Your task to perform on an android device: open the mobile data screen to see how much data has been used Image 0: 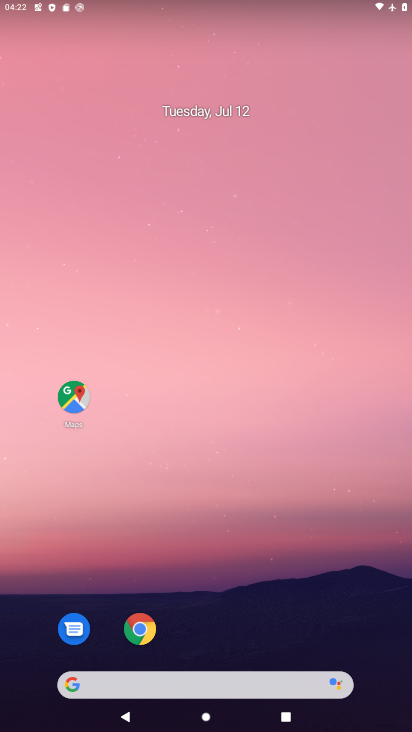
Step 0: drag from (304, 627) to (191, 201)
Your task to perform on an android device: open the mobile data screen to see how much data has been used Image 1: 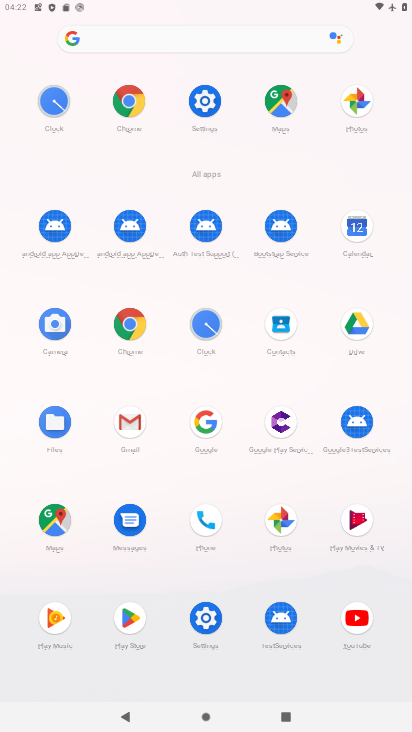
Step 1: click (209, 100)
Your task to perform on an android device: open the mobile data screen to see how much data has been used Image 2: 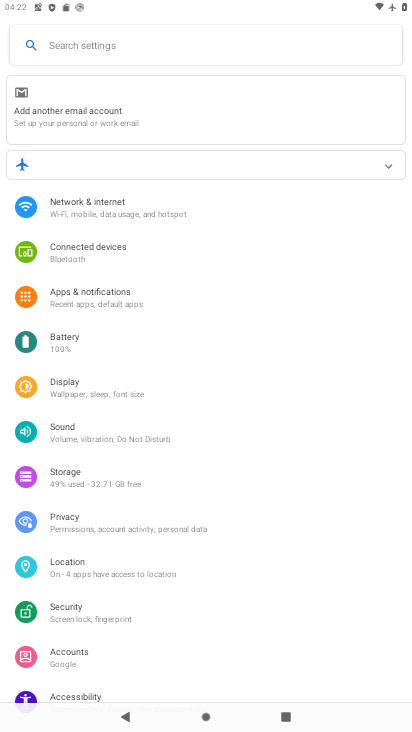
Step 2: click (143, 225)
Your task to perform on an android device: open the mobile data screen to see how much data has been used Image 3: 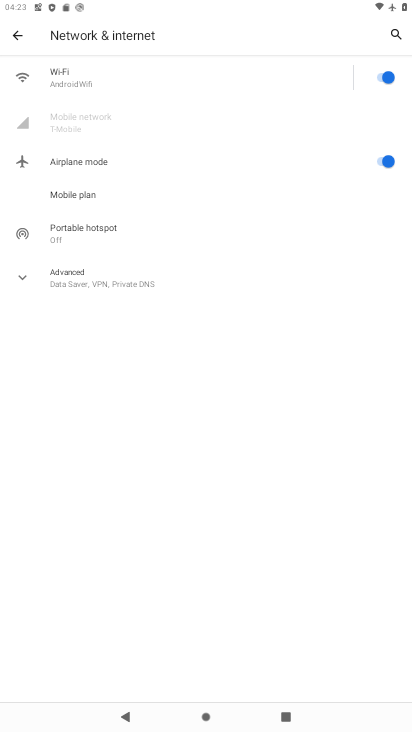
Step 3: task complete